Your task to perform on an android device: Go to Reddit Image 0: 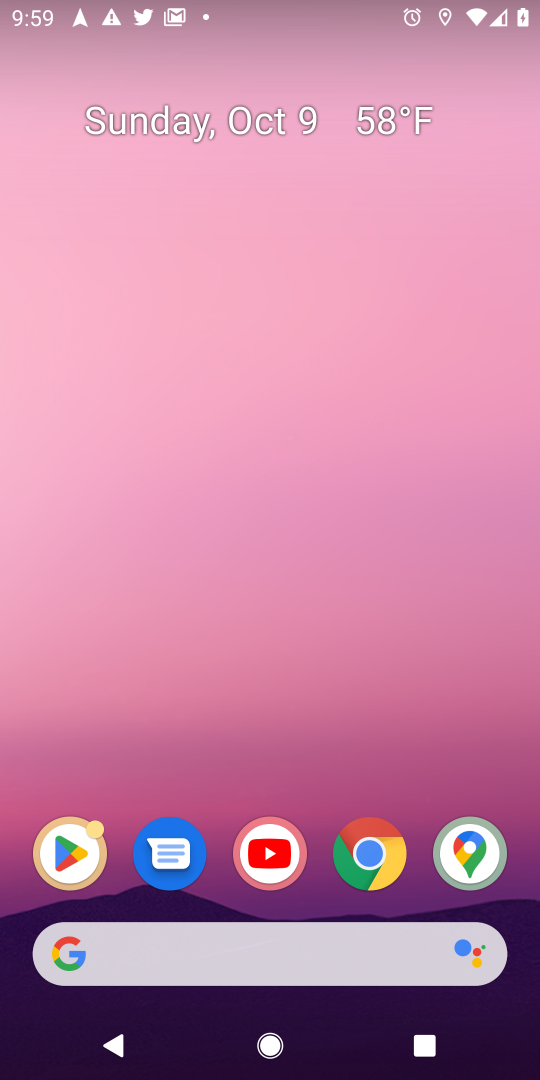
Step 0: drag from (351, 778) to (314, 244)
Your task to perform on an android device: Go to Reddit Image 1: 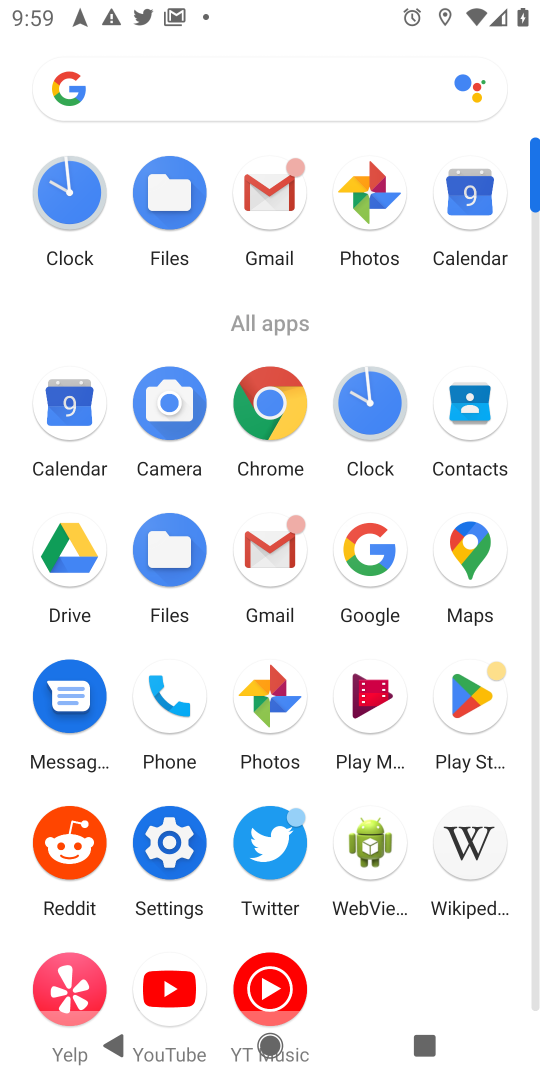
Step 1: click (82, 856)
Your task to perform on an android device: Go to Reddit Image 2: 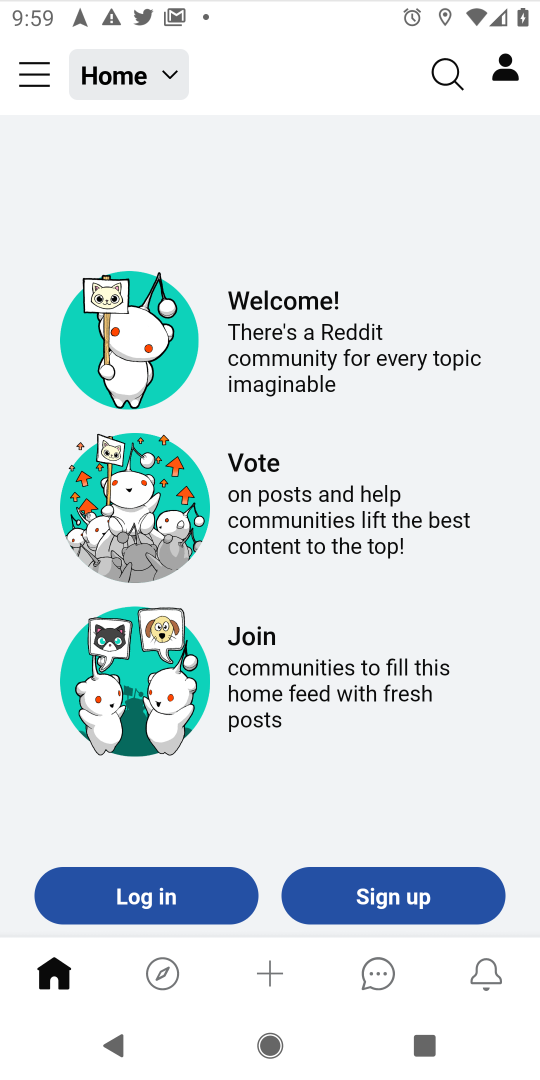
Step 2: task complete